Your task to perform on an android device: Clear the shopping cart on costco.com. Search for lg ultragear on costco.com, select the first entry, add it to the cart, then select checkout. Image 0: 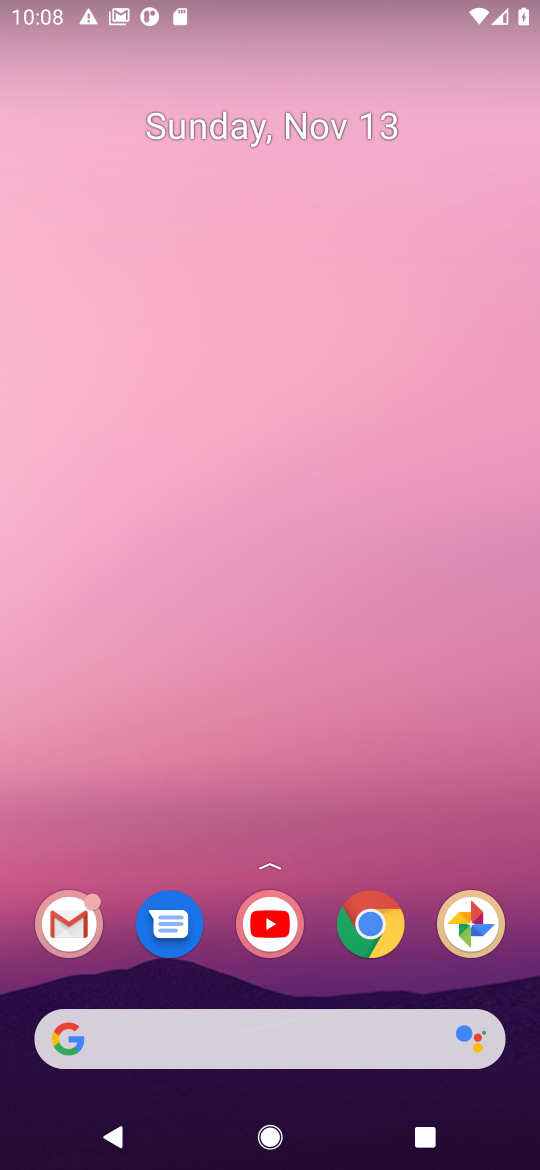
Step 0: click (368, 926)
Your task to perform on an android device: Clear the shopping cart on costco.com. Search for lg ultragear on costco.com, select the first entry, add it to the cart, then select checkout. Image 1: 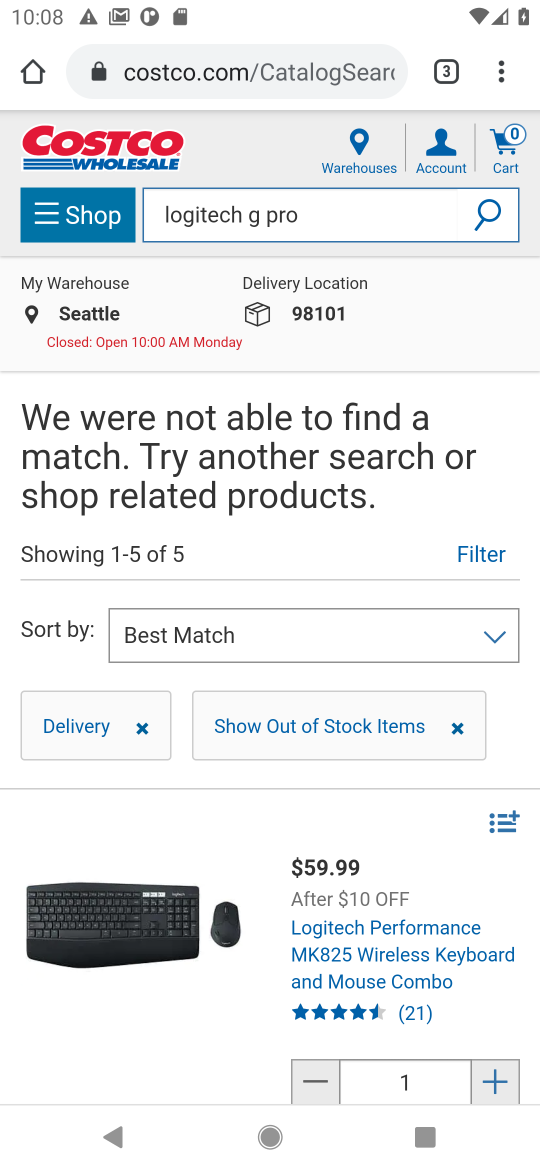
Step 1: click (518, 154)
Your task to perform on an android device: Clear the shopping cart on costco.com. Search for lg ultragear on costco.com, select the first entry, add it to the cart, then select checkout. Image 2: 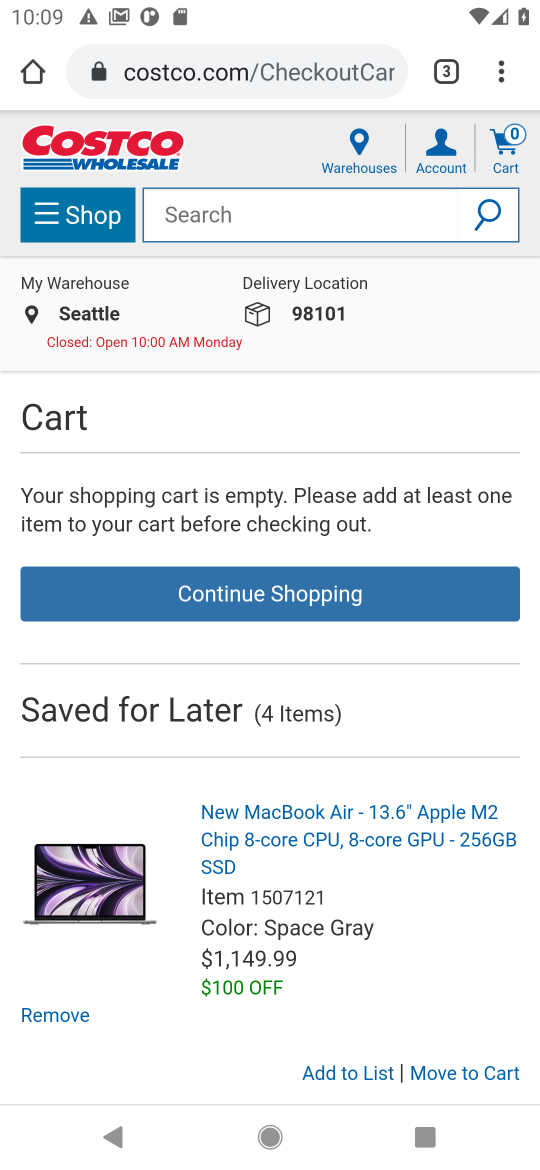
Step 2: click (285, 225)
Your task to perform on an android device: Clear the shopping cart on costco.com. Search for lg ultragear on costco.com, select the first entry, add it to the cart, then select checkout. Image 3: 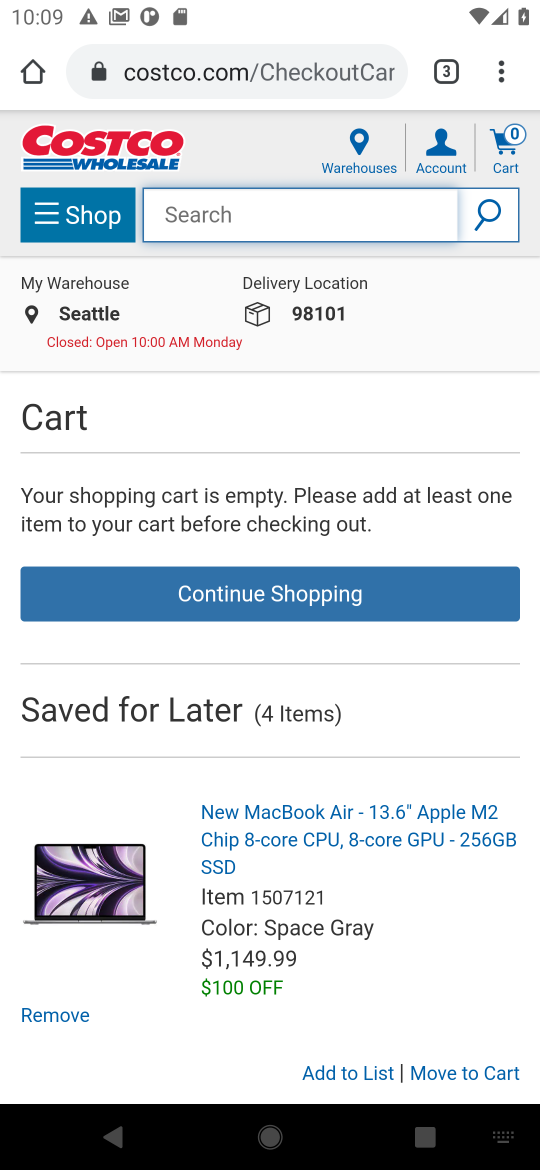
Step 3: type " lg ultragear"
Your task to perform on an android device: Clear the shopping cart on costco.com. Search for lg ultragear on costco.com, select the first entry, add it to the cart, then select checkout. Image 4: 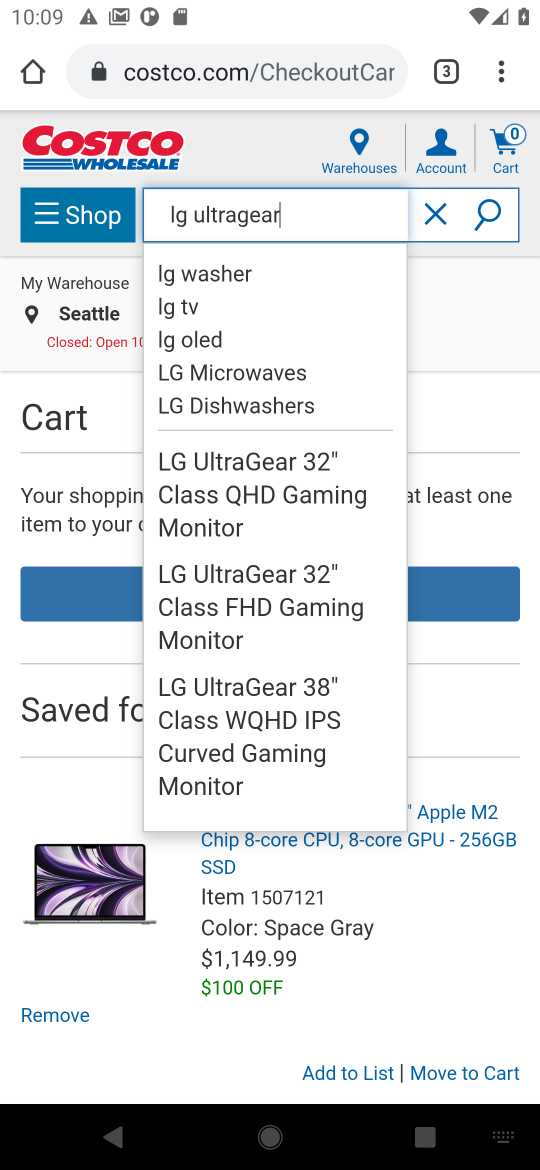
Step 4: click (487, 219)
Your task to perform on an android device: Clear the shopping cart on costco.com. Search for lg ultragear on costco.com, select the first entry, add it to the cart, then select checkout. Image 5: 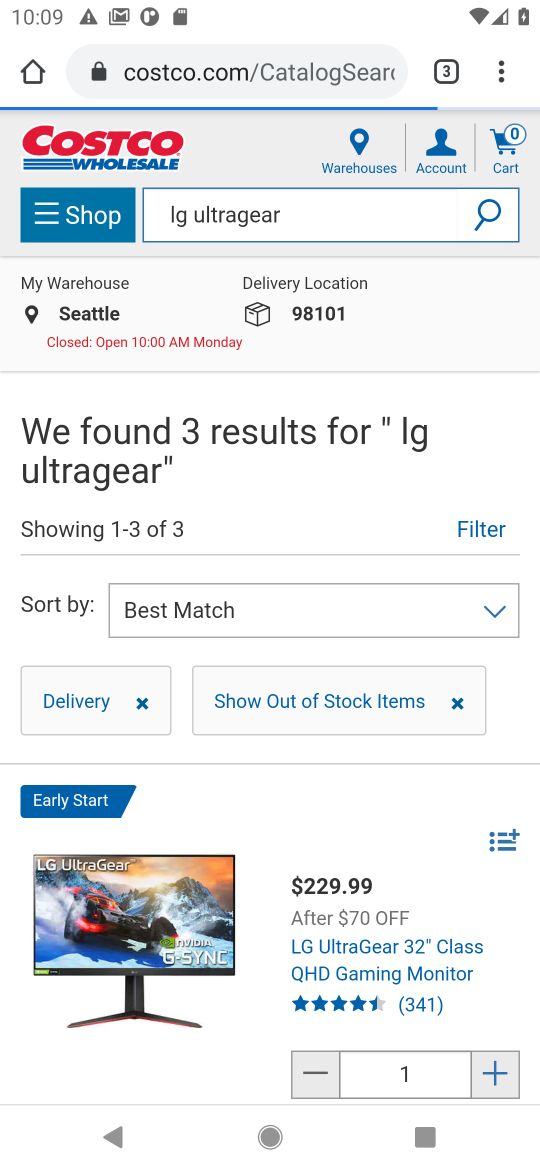
Step 5: drag from (258, 836) to (234, 547)
Your task to perform on an android device: Clear the shopping cart on costco.com. Search for lg ultragear on costco.com, select the first entry, add it to the cart, then select checkout. Image 6: 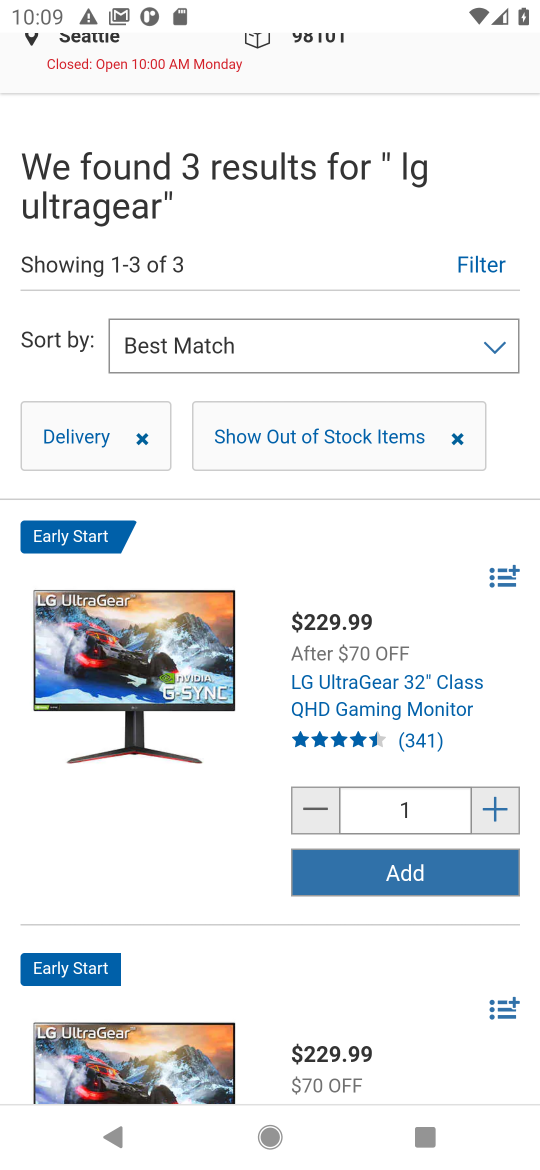
Step 6: click (361, 883)
Your task to perform on an android device: Clear the shopping cart on costco.com. Search for lg ultragear on costco.com, select the first entry, add it to the cart, then select checkout. Image 7: 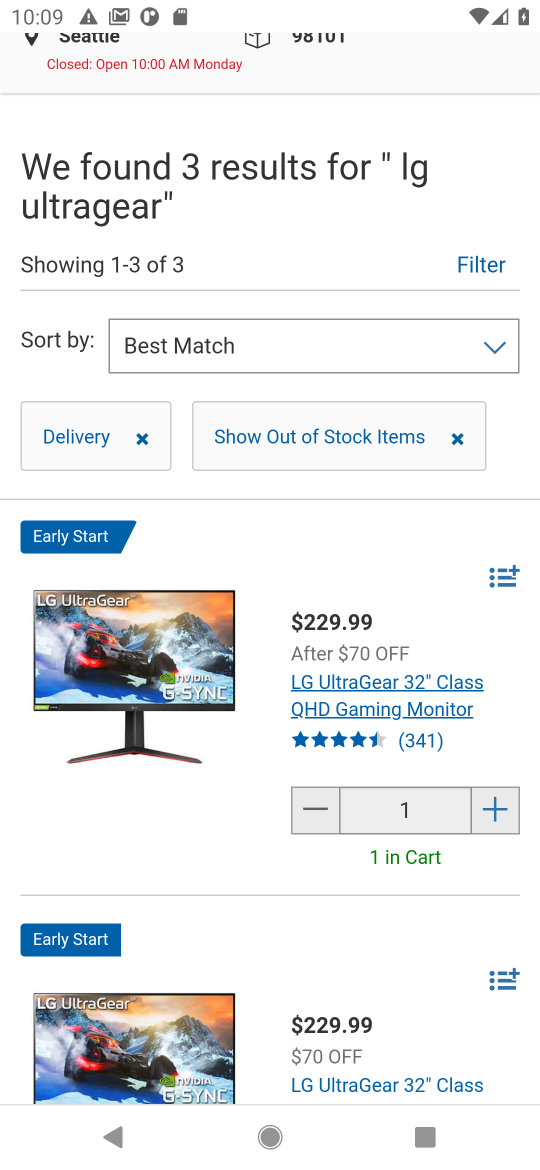
Step 7: drag from (352, 338) to (403, 696)
Your task to perform on an android device: Clear the shopping cart on costco.com. Search for lg ultragear on costco.com, select the first entry, add it to the cart, then select checkout. Image 8: 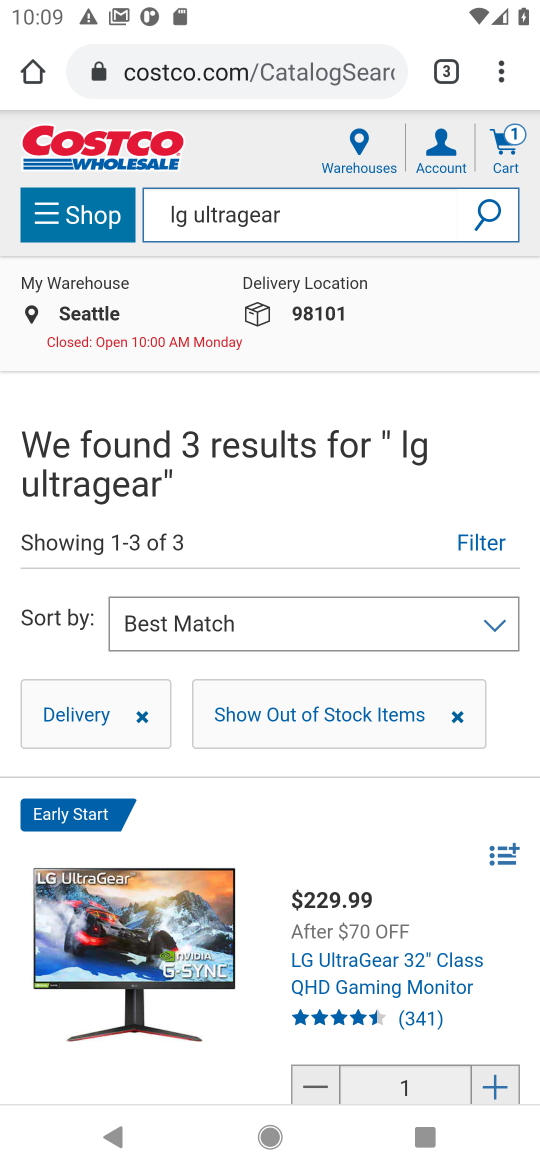
Step 8: click (500, 153)
Your task to perform on an android device: Clear the shopping cart on costco.com. Search for lg ultragear on costco.com, select the first entry, add it to the cart, then select checkout. Image 9: 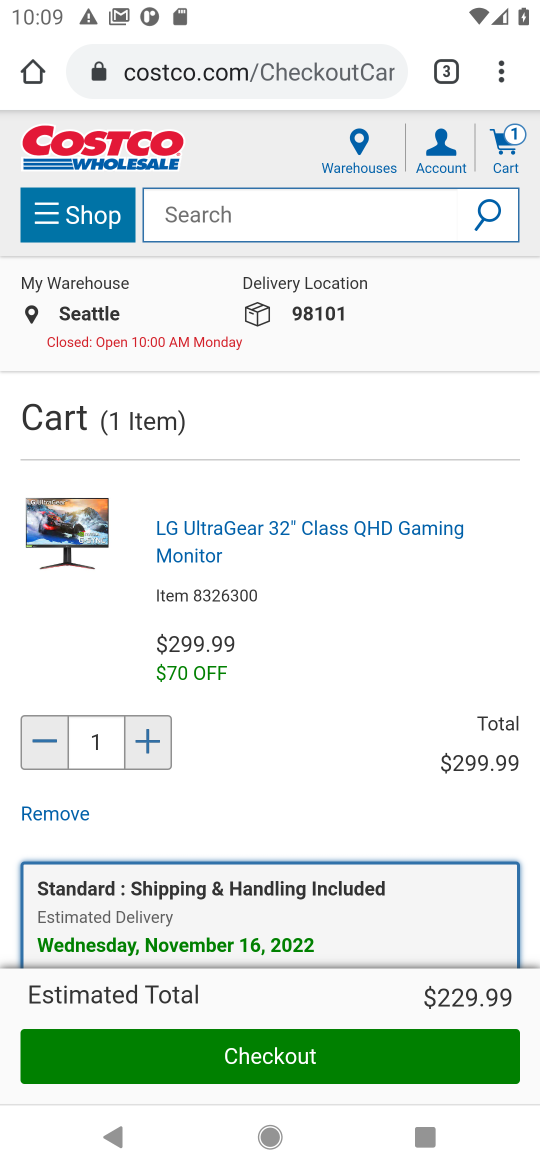
Step 9: click (250, 1056)
Your task to perform on an android device: Clear the shopping cart on costco.com. Search for lg ultragear on costco.com, select the first entry, add it to the cart, then select checkout. Image 10: 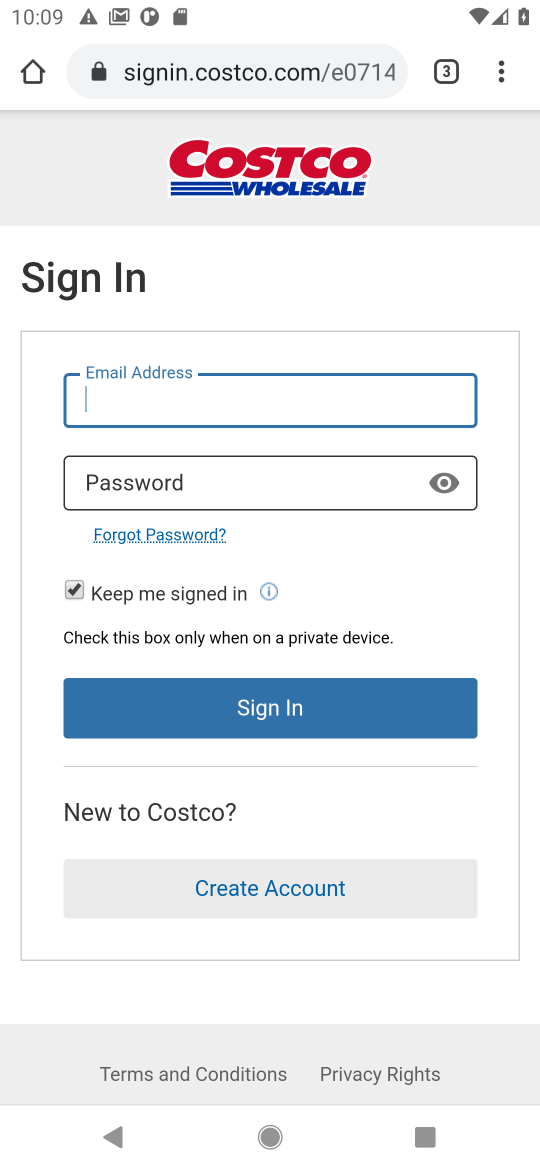
Step 10: task complete